Your task to perform on an android device: turn on airplane mode Image 0: 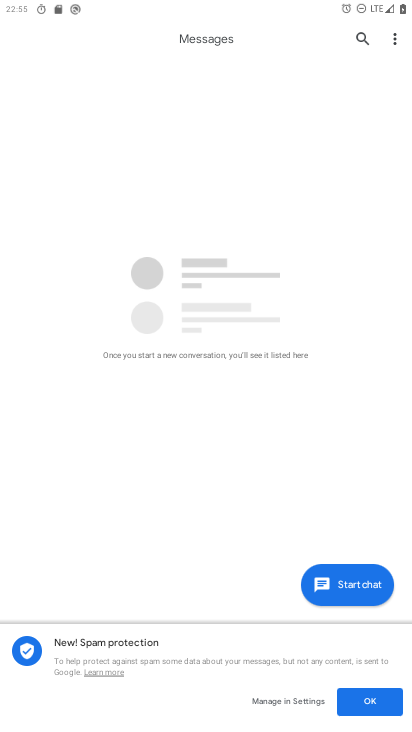
Step 0: press home button
Your task to perform on an android device: turn on airplane mode Image 1: 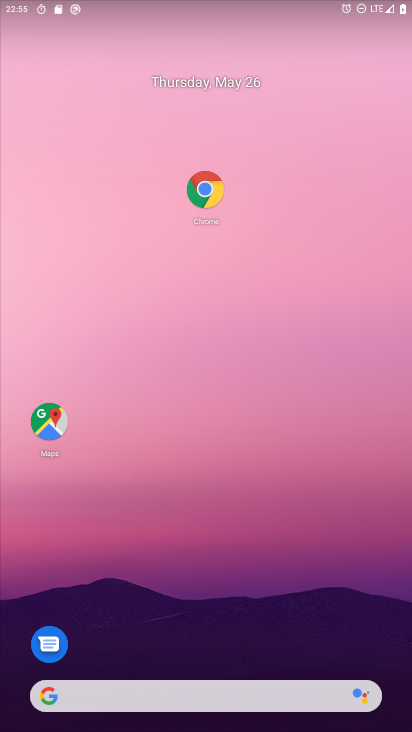
Step 1: drag from (231, 625) to (231, 148)
Your task to perform on an android device: turn on airplane mode Image 2: 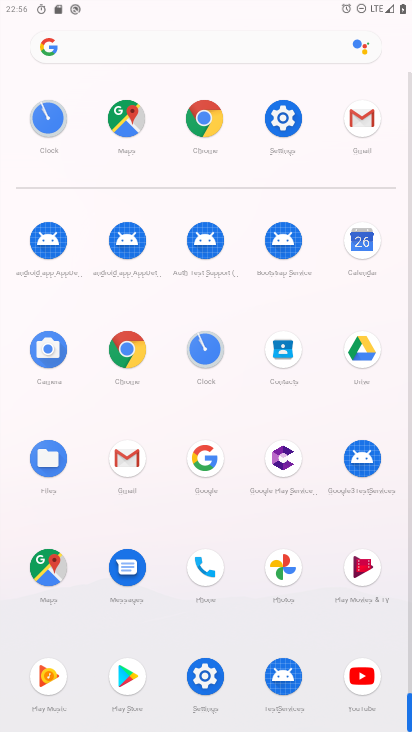
Step 2: click (201, 667)
Your task to perform on an android device: turn on airplane mode Image 3: 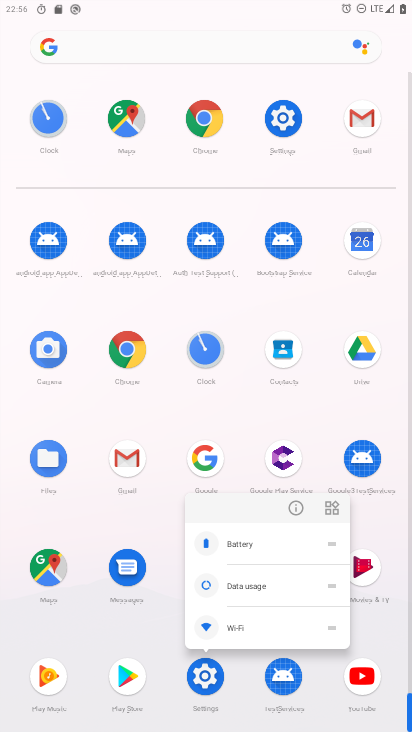
Step 3: click (264, 119)
Your task to perform on an android device: turn on airplane mode Image 4: 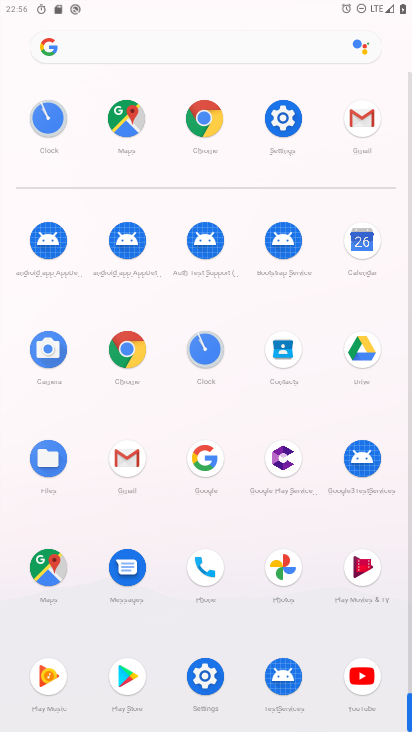
Step 4: click (270, 134)
Your task to perform on an android device: turn on airplane mode Image 5: 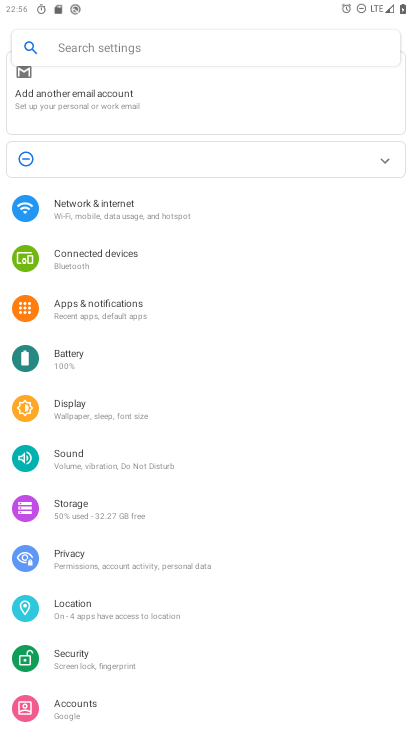
Step 5: click (125, 205)
Your task to perform on an android device: turn on airplane mode Image 6: 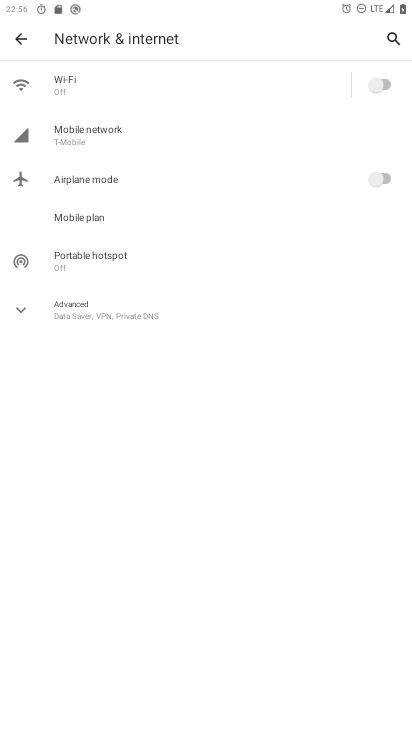
Step 6: click (169, 182)
Your task to perform on an android device: turn on airplane mode Image 7: 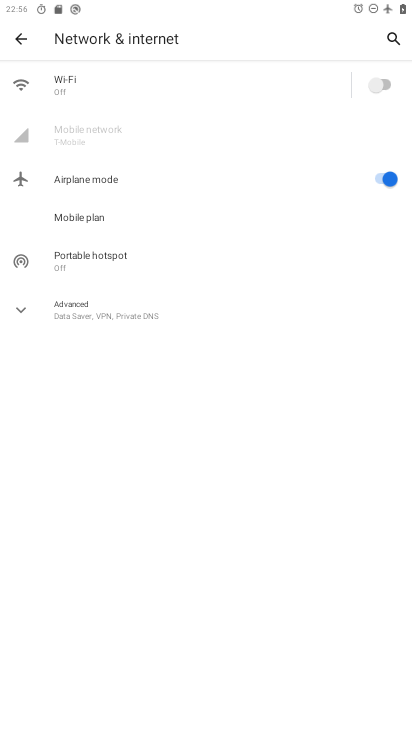
Step 7: task complete